Your task to perform on an android device: refresh tabs in the chrome app Image 0: 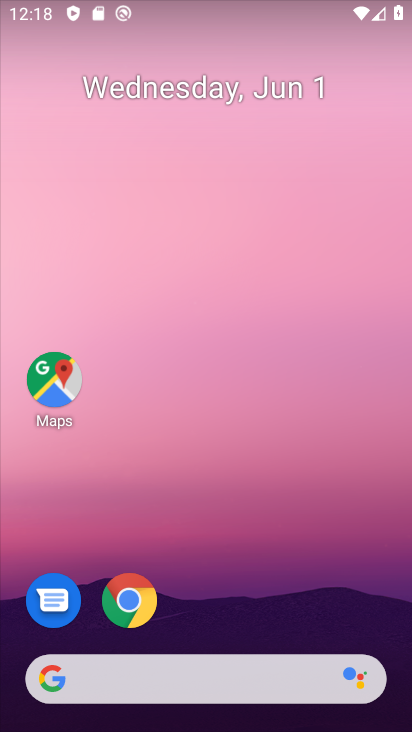
Step 0: press home button
Your task to perform on an android device: refresh tabs in the chrome app Image 1: 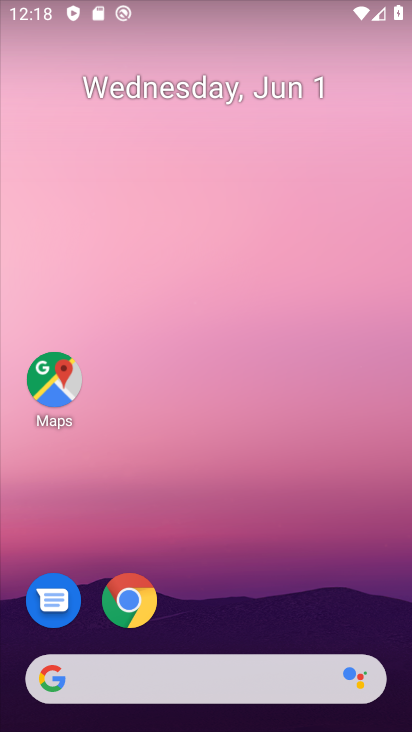
Step 1: drag from (228, 636) to (243, 47)
Your task to perform on an android device: refresh tabs in the chrome app Image 2: 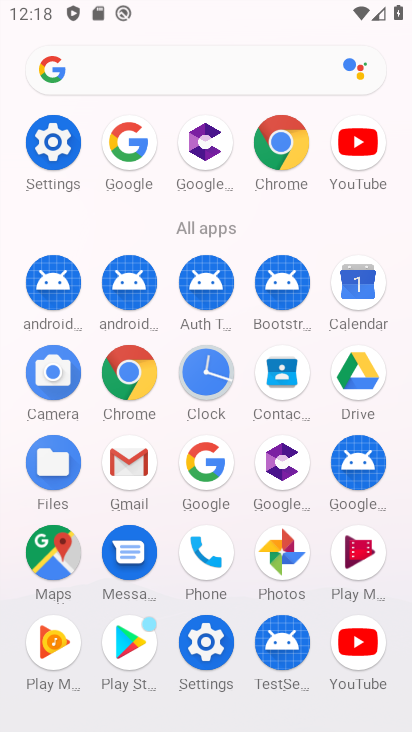
Step 2: click (291, 134)
Your task to perform on an android device: refresh tabs in the chrome app Image 3: 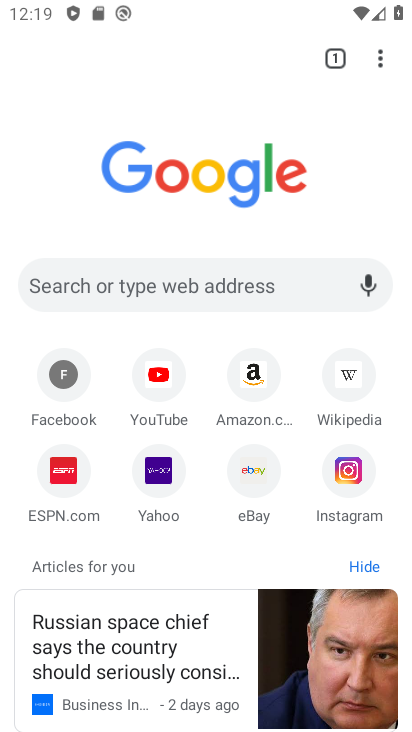
Step 3: click (381, 61)
Your task to perform on an android device: refresh tabs in the chrome app Image 4: 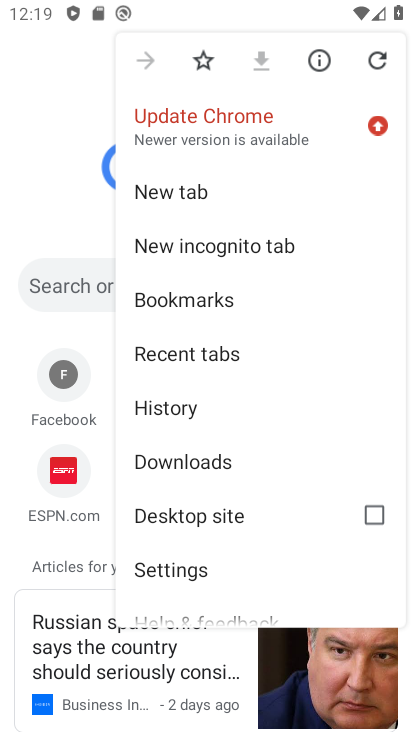
Step 4: click (372, 60)
Your task to perform on an android device: refresh tabs in the chrome app Image 5: 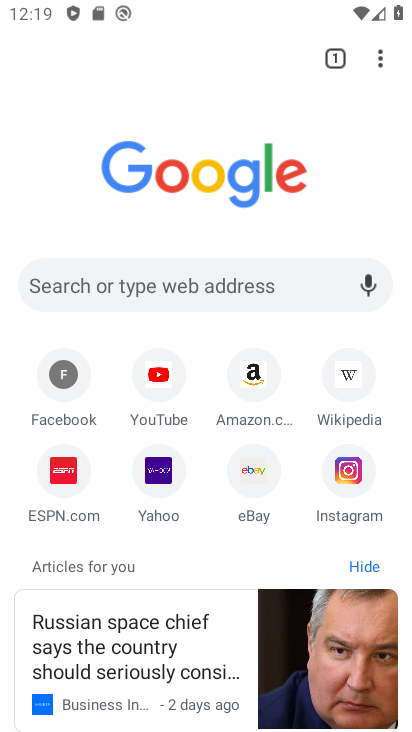
Step 5: task complete